Your task to perform on an android device: turn on javascript in the chrome app Image 0: 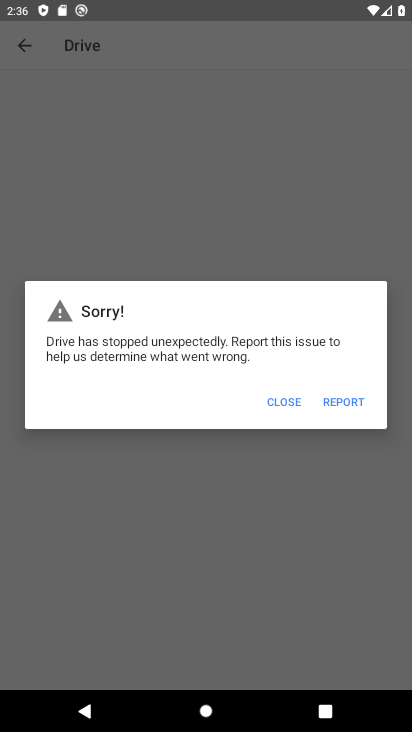
Step 0: press home button
Your task to perform on an android device: turn on javascript in the chrome app Image 1: 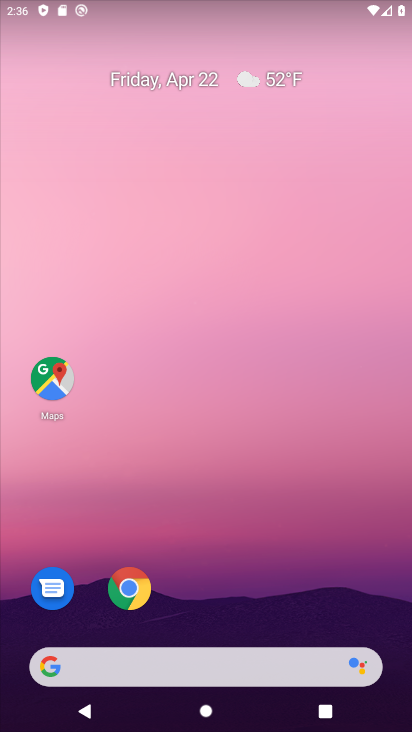
Step 1: click (137, 596)
Your task to perform on an android device: turn on javascript in the chrome app Image 2: 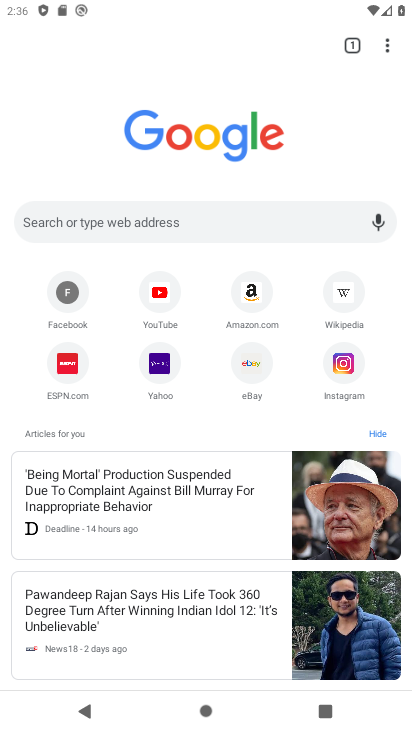
Step 2: click (387, 50)
Your task to perform on an android device: turn on javascript in the chrome app Image 3: 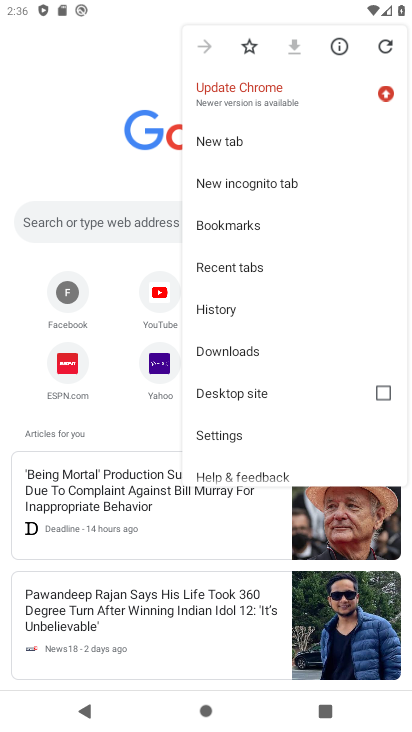
Step 3: click (221, 438)
Your task to perform on an android device: turn on javascript in the chrome app Image 4: 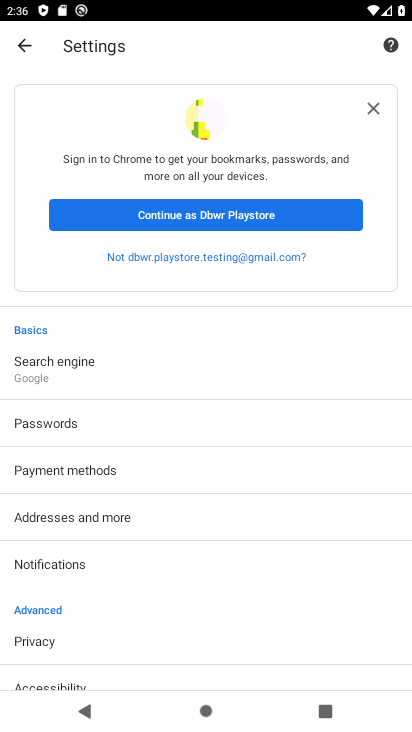
Step 4: drag from (175, 548) to (199, 239)
Your task to perform on an android device: turn on javascript in the chrome app Image 5: 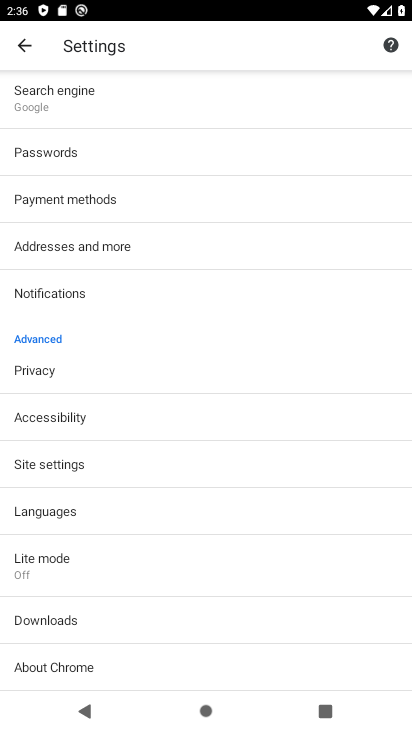
Step 5: click (88, 469)
Your task to perform on an android device: turn on javascript in the chrome app Image 6: 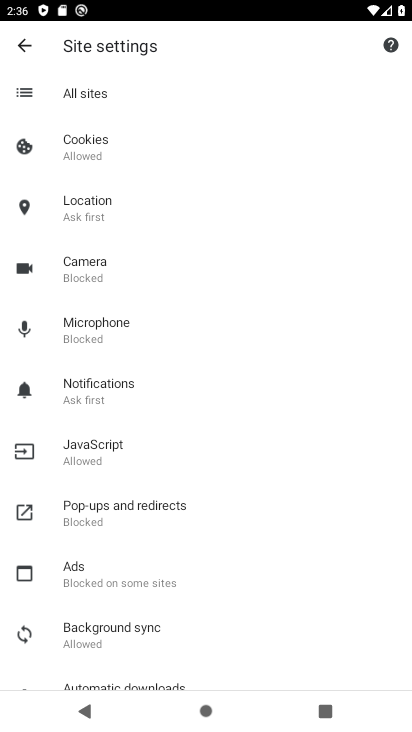
Step 6: click (87, 459)
Your task to perform on an android device: turn on javascript in the chrome app Image 7: 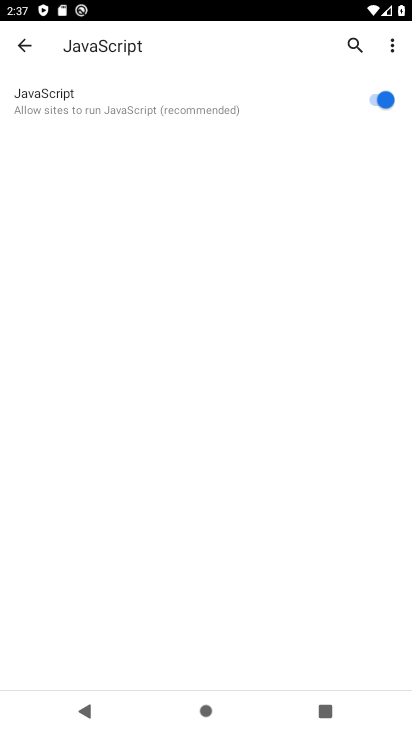
Step 7: task complete